Your task to perform on an android device: Search for custom t-shirts on Etsy. Image 0: 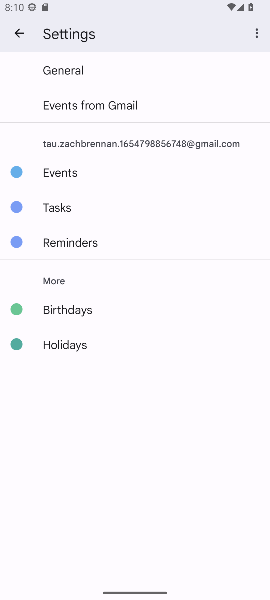
Step 0: press home button
Your task to perform on an android device: Search for custom t-shirts on Etsy. Image 1: 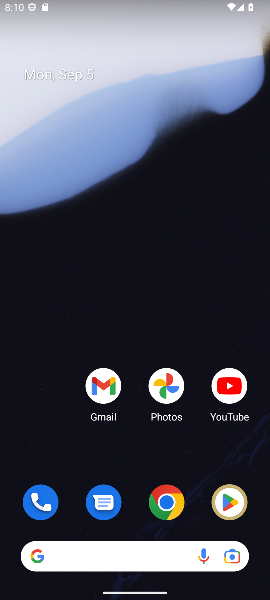
Step 1: drag from (260, 476) to (135, 90)
Your task to perform on an android device: Search for custom t-shirts on Etsy. Image 2: 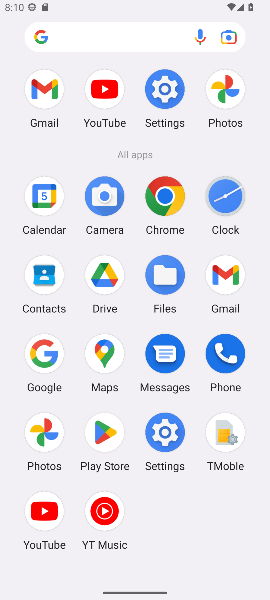
Step 2: click (47, 355)
Your task to perform on an android device: Search for custom t-shirts on Etsy. Image 3: 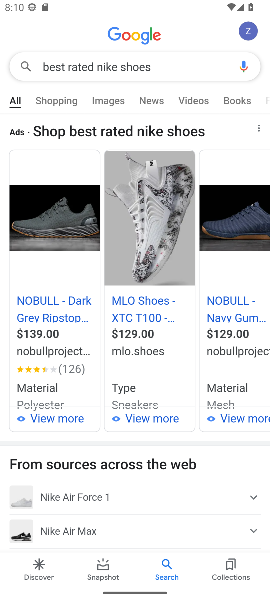
Step 3: press back button
Your task to perform on an android device: Search for custom t-shirts on Etsy. Image 4: 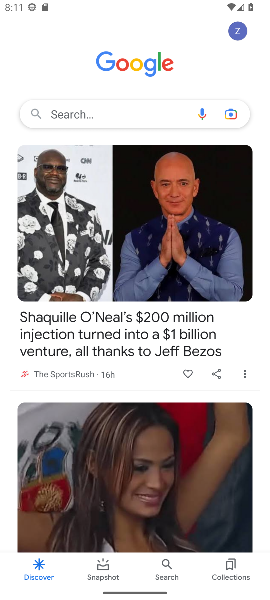
Step 4: click (75, 116)
Your task to perform on an android device: Search for custom t-shirts on Etsy. Image 5: 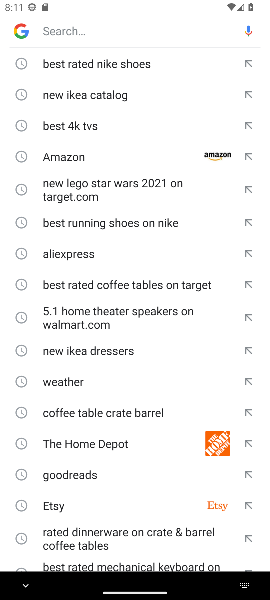
Step 5: type " custom t-shirts on Etsy"
Your task to perform on an android device: Search for custom t-shirts on Etsy. Image 6: 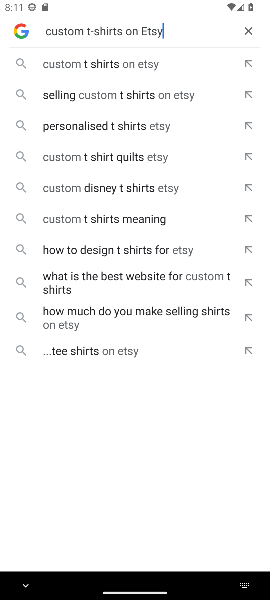
Step 6: click (66, 69)
Your task to perform on an android device: Search for custom t-shirts on Etsy. Image 7: 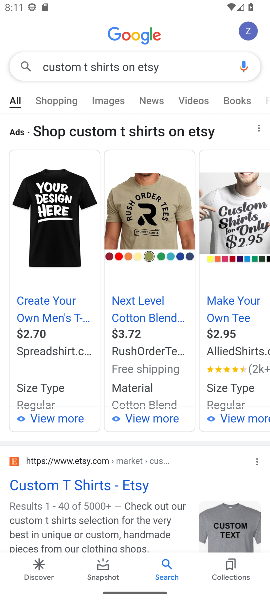
Step 7: task complete